Your task to perform on an android device: Open display settings Image 0: 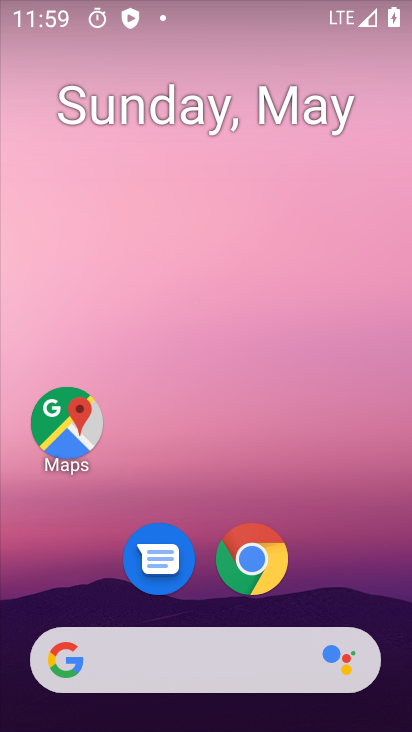
Step 0: drag from (328, 639) to (347, 0)
Your task to perform on an android device: Open display settings Image 1: 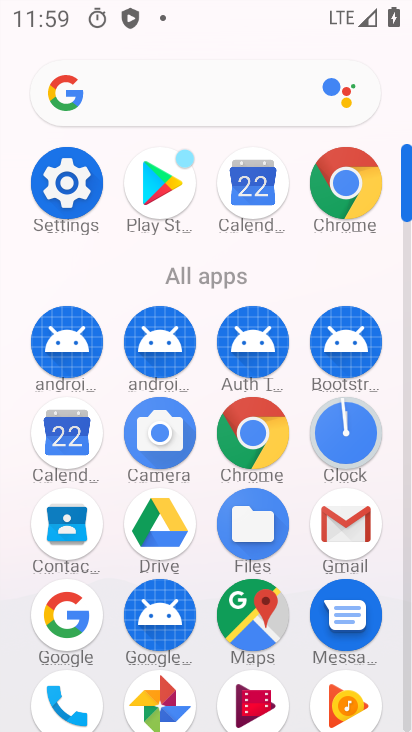
Step 1: click (52, 195)
Your task to perform on an android device: Open display settings Image 2: 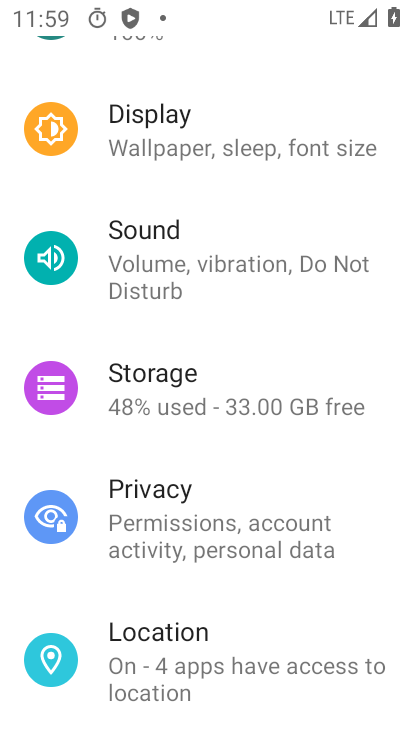
Step 2: click (172, 146)
Your task to perform on an android device: Open display settings Image 3: 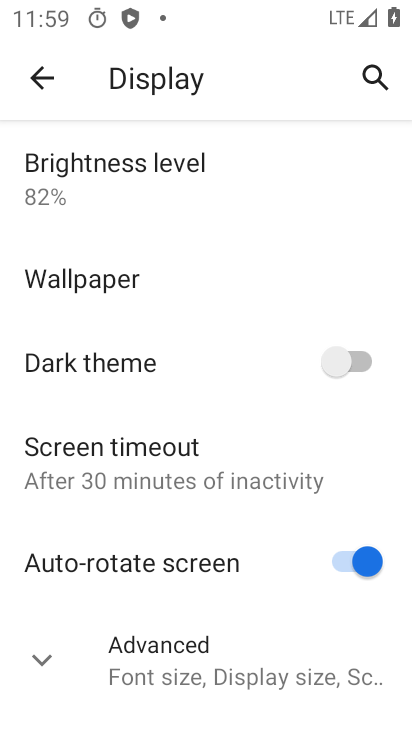
Step 3: task complete